Your task to perform on an android device: Is it going to rain today? Image 0: 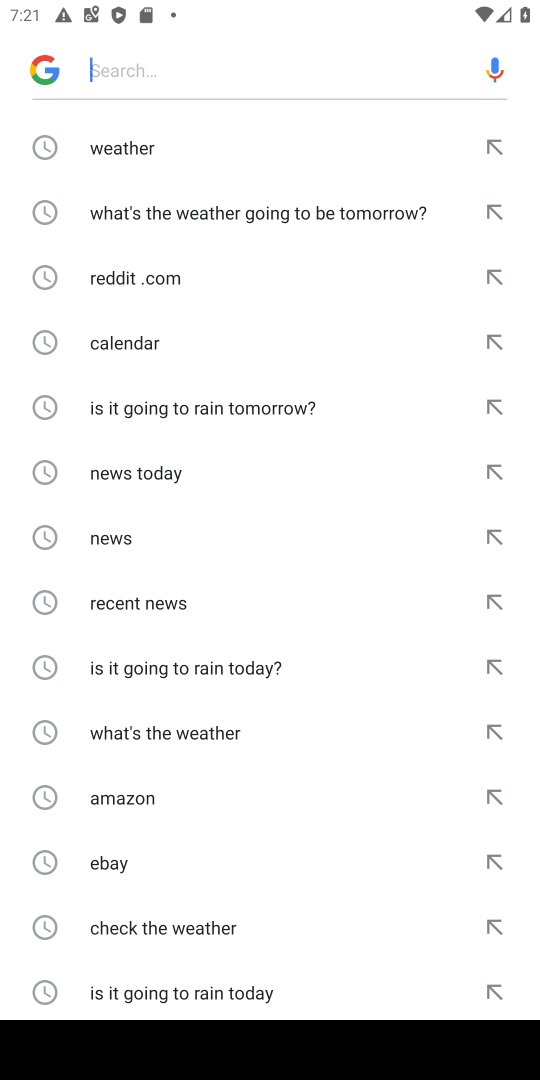
Step 0: click (125, 671)
Your task to perform on an android device: Is it going to rain today? Image 1: 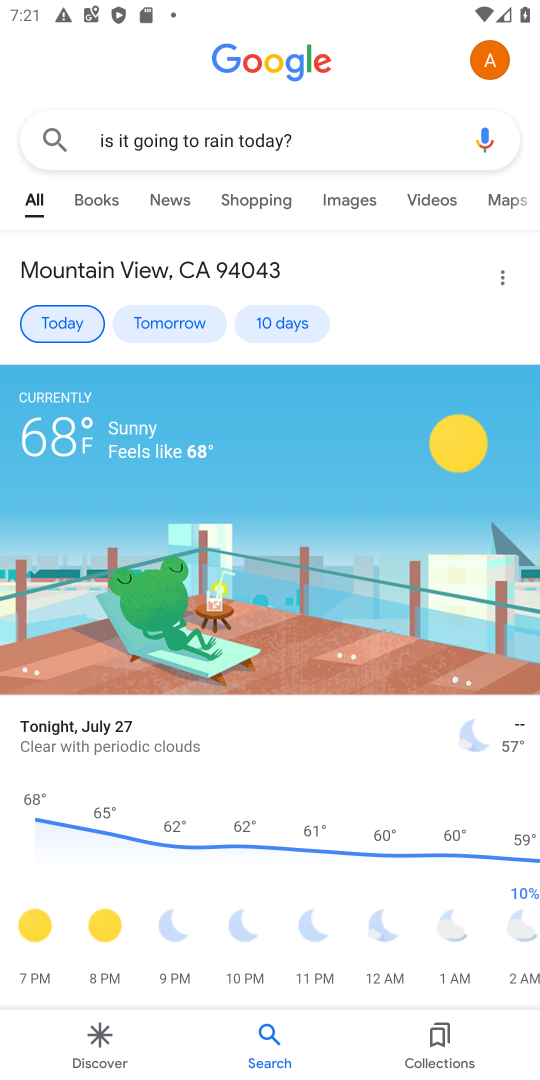
Step 1: task complete